Your task to perform on an android device: turn notification dots on Image 0: 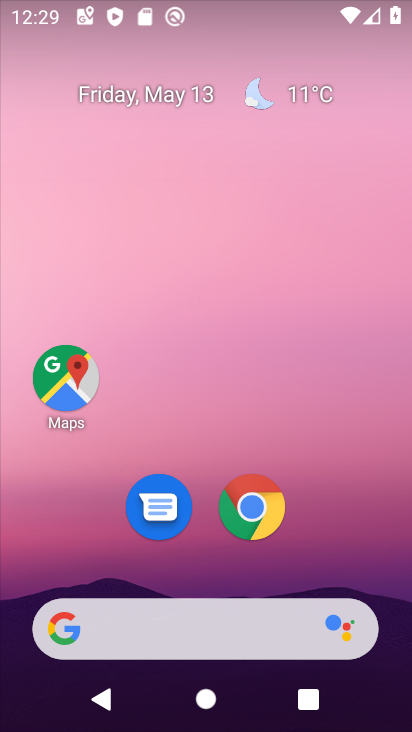
Step 0: drag from (197, 575) to (142, 11)
Your task to perform on an android device: turn notification dots on Image 1: 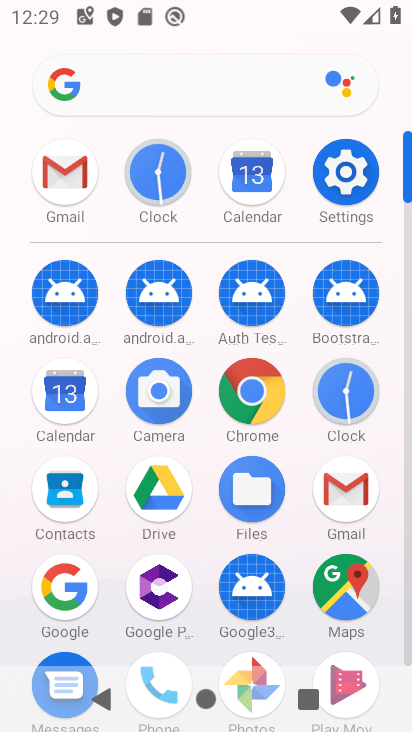
Step 1: click (346, 188)
Your task to perform on an android device: turn notification dots on Image 2: 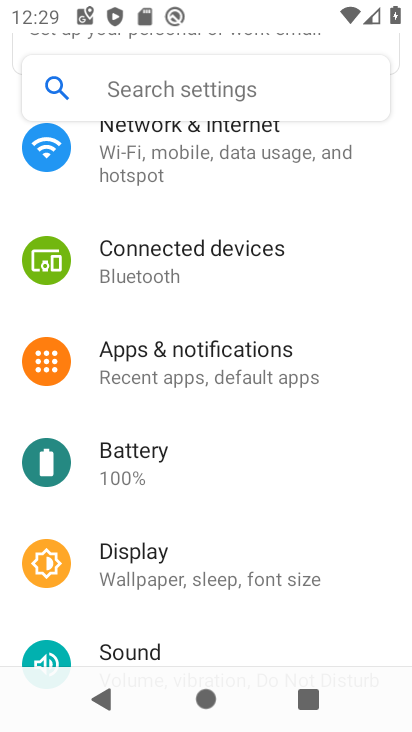
Step 2: click (227, 349)
Your task to perform on an android device: turn notification dots on Image 3: 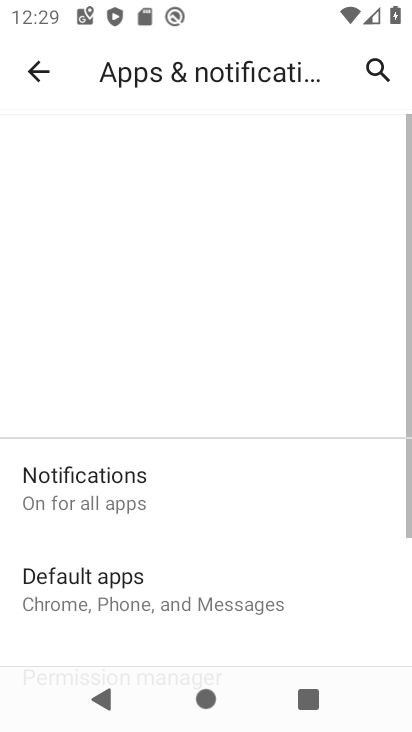
Step 3: drag from (182, 563) to (105, 197)
Your task to perform on an android device: turn notification dots on Image 4: 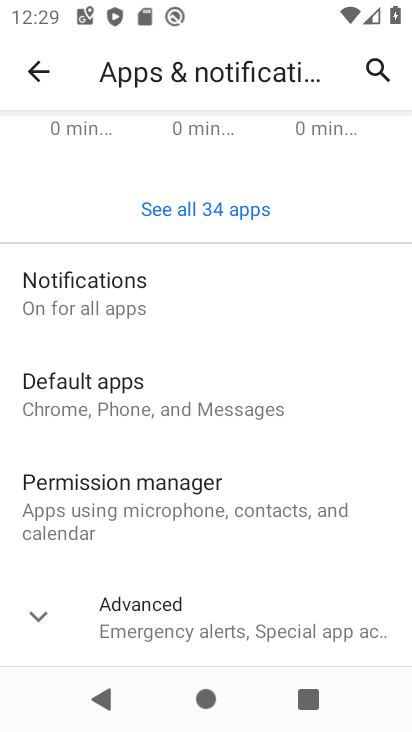
Step 4: click (117, 286)
Your task to perform on an android device: turn notification dots on Image 5: 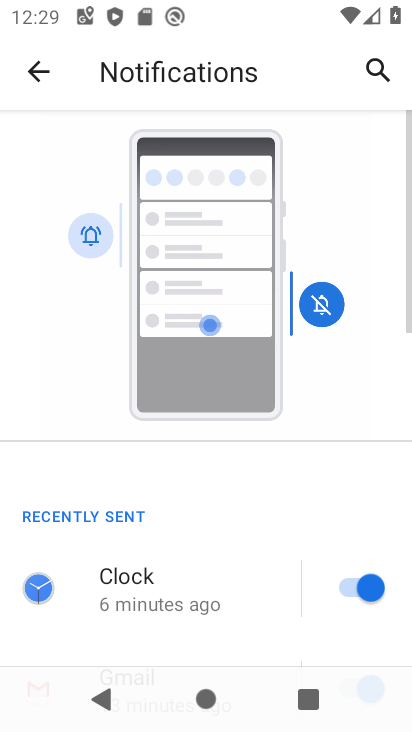
Step 5: drag from (166, 503) to (131, 17)
Your task to perform on an android device: turn notification dots on Image 6: 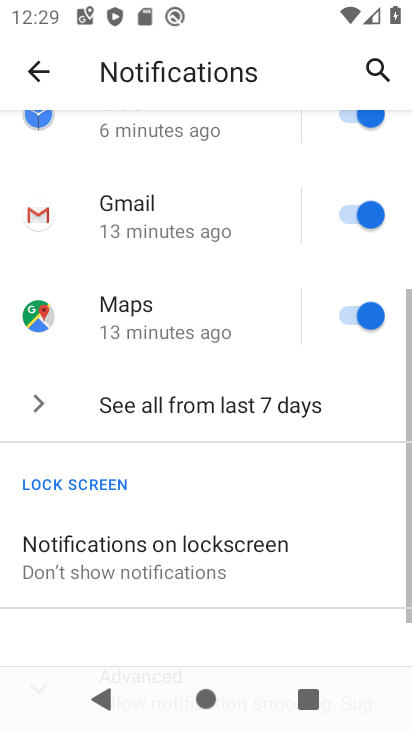
Step 6: drag from (200, 454) to (174, 6)
Your task to perform on an android device: turn notification dots on Image 7: 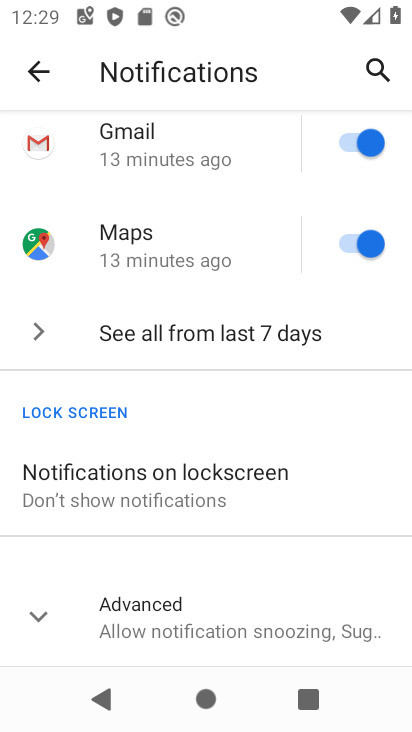
Step 7: click (234, 628)
Your task to perform on an android device: turn notification dots on Image 8: 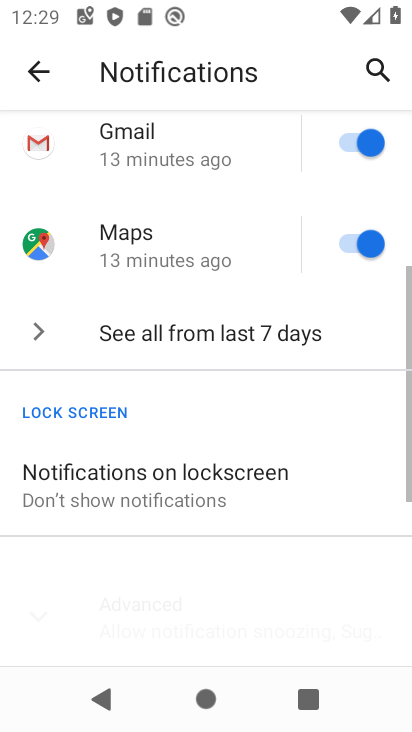
Step 8: task complete